Your task to perform on an android device: Go to calendar. Show me events next week Image 0: 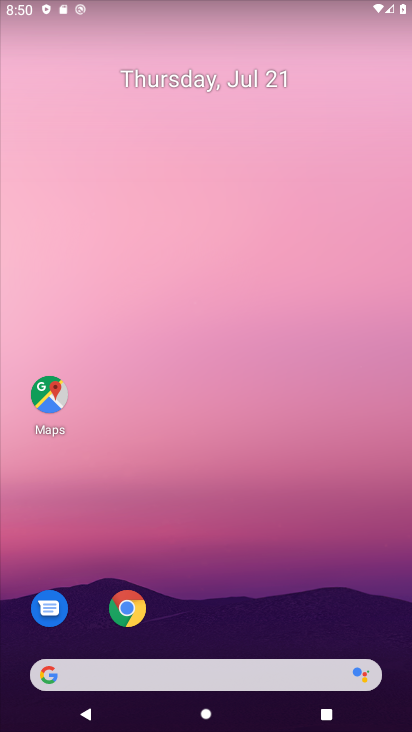
Step 0: drag from (225, 626) to (212, 122)
Your task to perform on an android device: Go to calendar. Show me events next week Image 1: 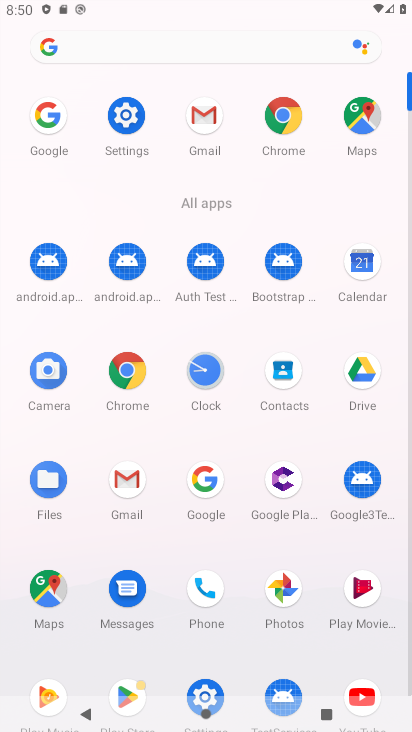
Step 1: click (355, 272)
Your task to perform on an android device: Go to calendar. Show me events next week Image 2: 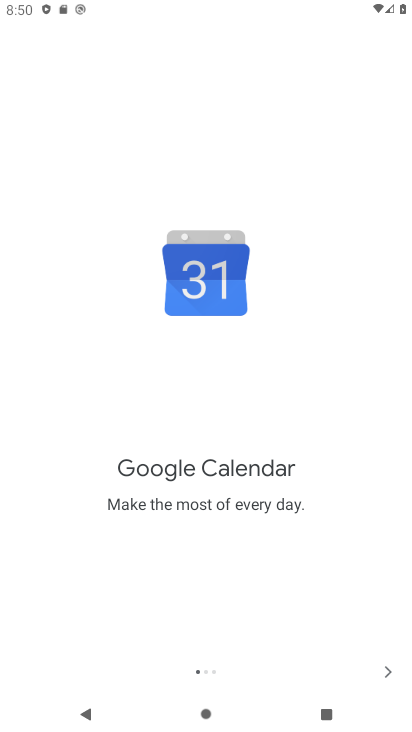
Step 2: click (389, 680)
Your task to perform on an android device: Go to calendar. Show me events next week Image 3: 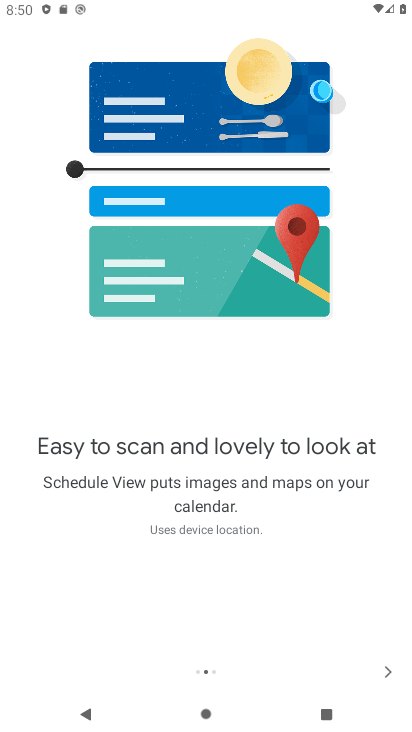
Step 3: click (383, 680)
Your task to perform on an android device: Go to calendar. Show me events next week Image 4: 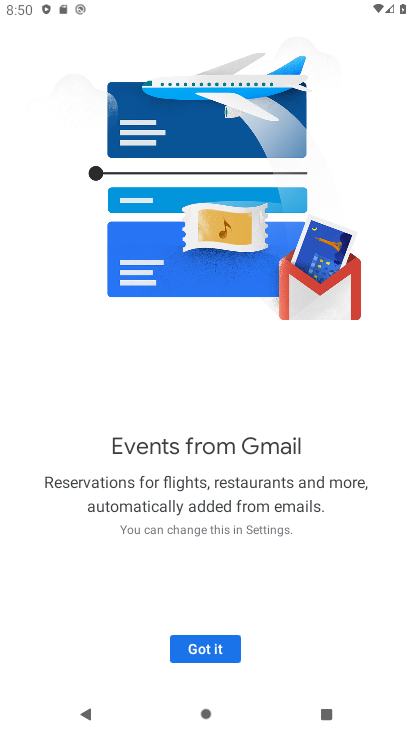
Step 4: click (219, 650)
Your task to perform on an android device: Go to calendar. Show me events next week Image 5: 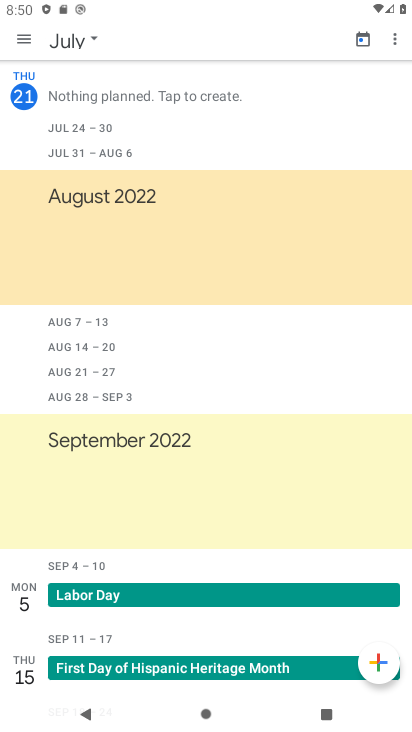
Step 5: click (21, 42)
Your task to perform on an android device: Go to calendar. Show me events next week Image 6: 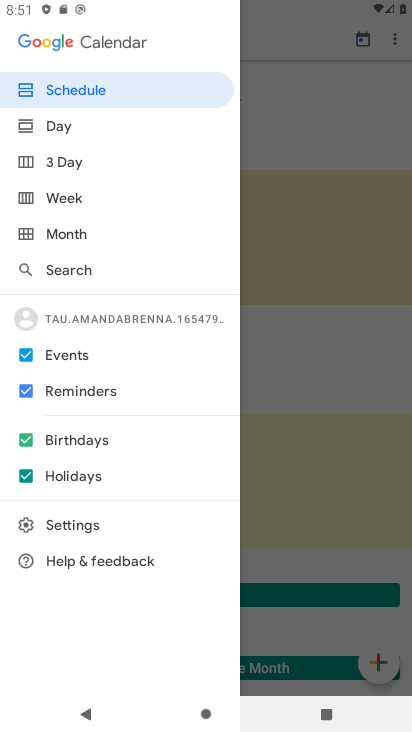
Step 6: click (29, 478)
Your task to perform on an android device: Go to calendar. Show me events next week Image 7: 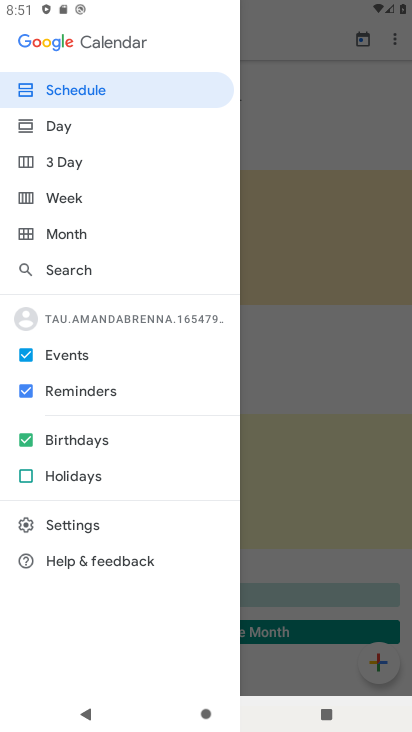
Step 7: click (23, 437)
Your task to perform on an android device: Go to calendar. Show me events next week Image 8: 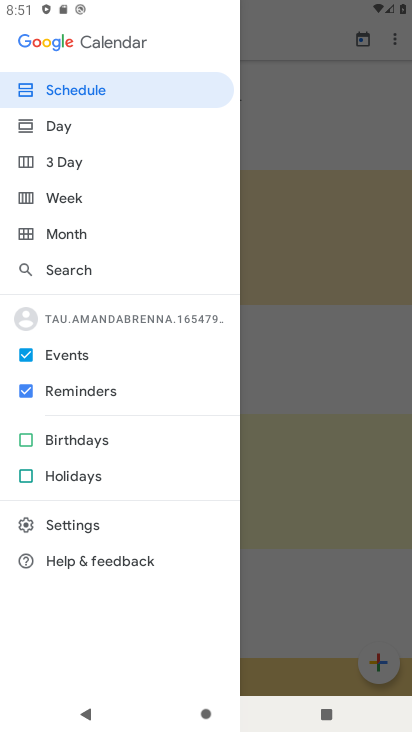
Step 8: click (20, 389)
Your task to perform on an android device: Go to calendar. Show me events next week Image 9: 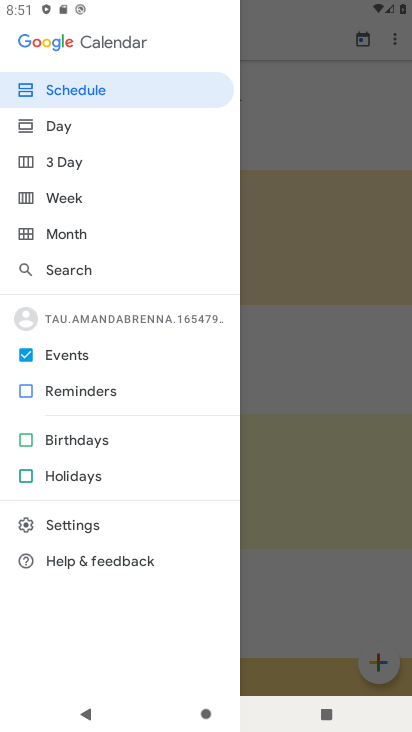
Step 9: click (73, 194)
Your task to perform on an android device: Go to calendar. Show me events next week Image 10: 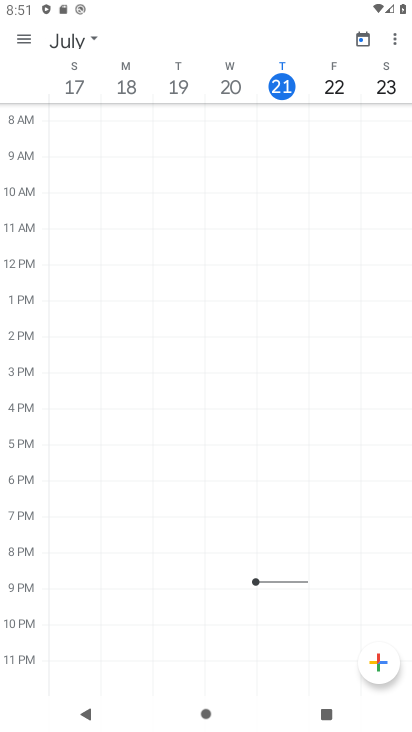
Step 10: task complete